Your task to perform on an android device: add a label to a message in the gmail app Image 0: 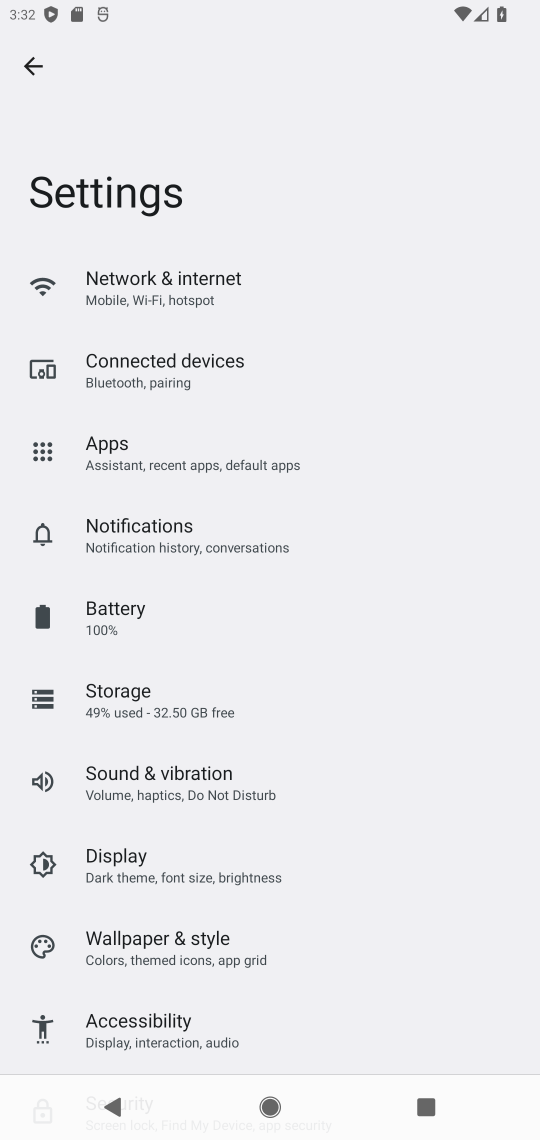
Step 0: press home button
Your task to perform on an android device: add a label to a message in the gmail app Image 1: 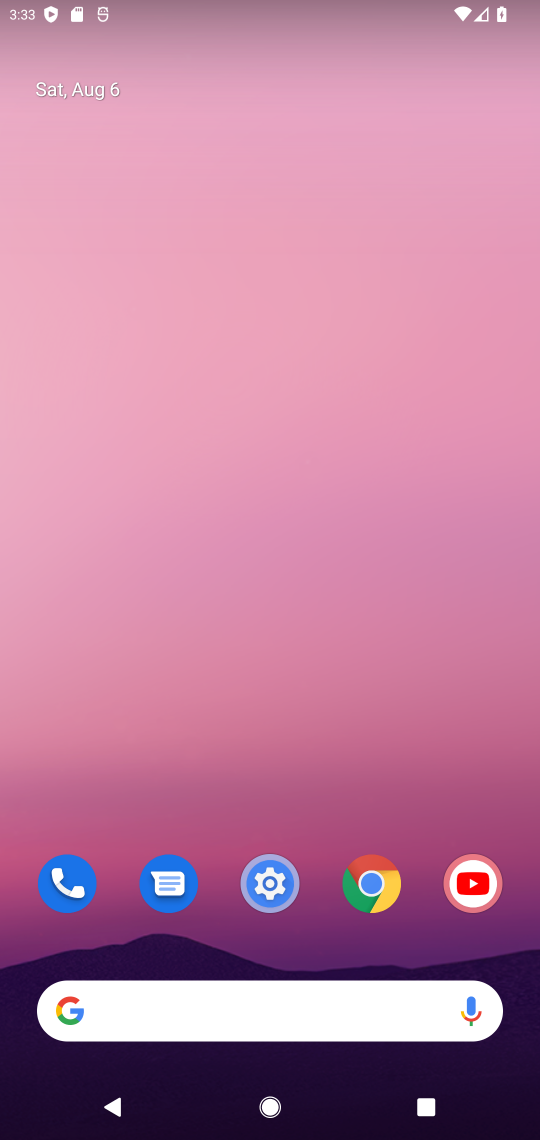
Step 1: drag from (302, 559) to (259, 8)
Your task to perform on an android device: add a label to a message in the gmail app Image 2: 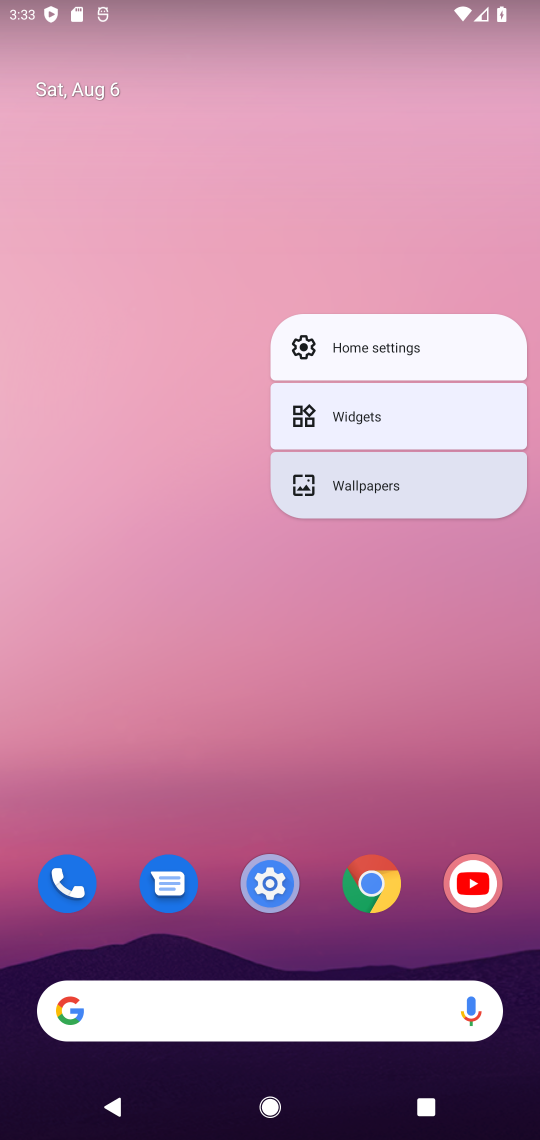
Step 2: click (214, 652)
Your task to perform on an android device: add a label to a message in the gmail app Image 3: 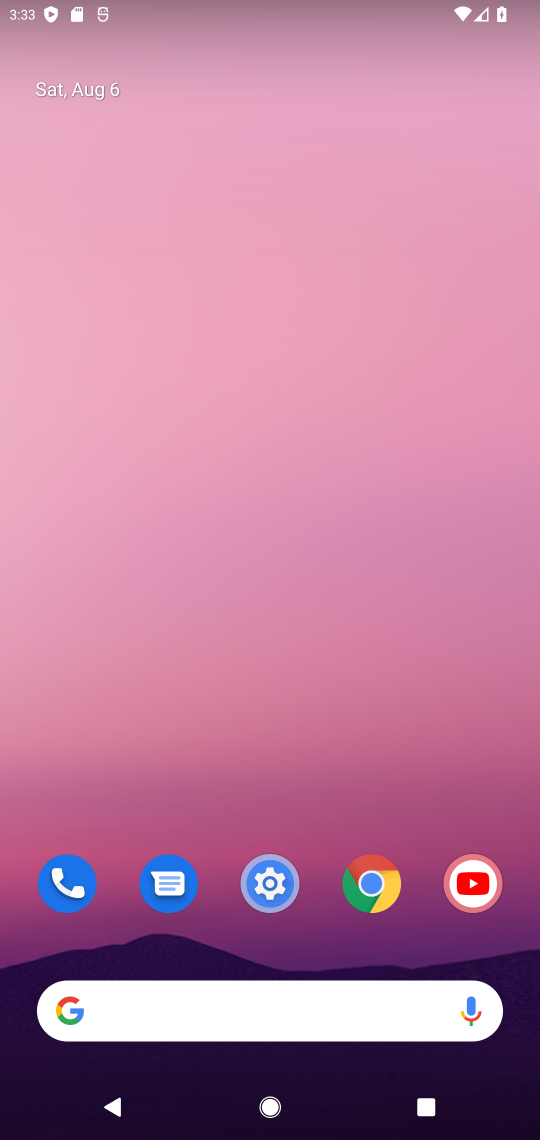
Step 3: drag from (244, 997) to (201, 132)
Your task to perform on an android device: add a label to a message in the gmail app Image 4: 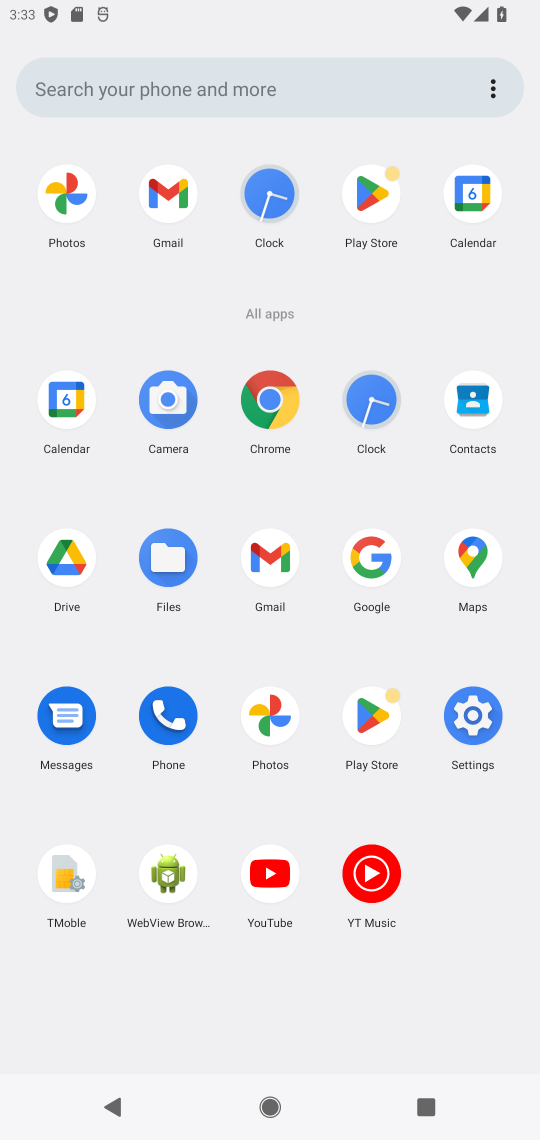
Step 4: click (172, 218)
Your task to perform on an android device: add a label to a message in the gmail app Image 5: 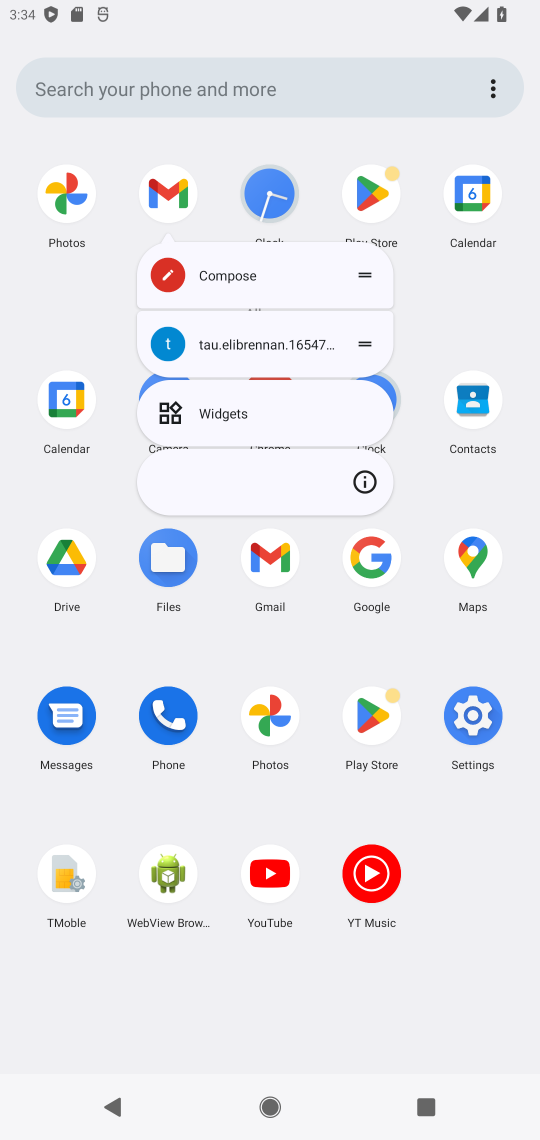
Step 5: click (156, 211)
Your task to perform on an android device: add a label to a message in the gmail app Image 6: 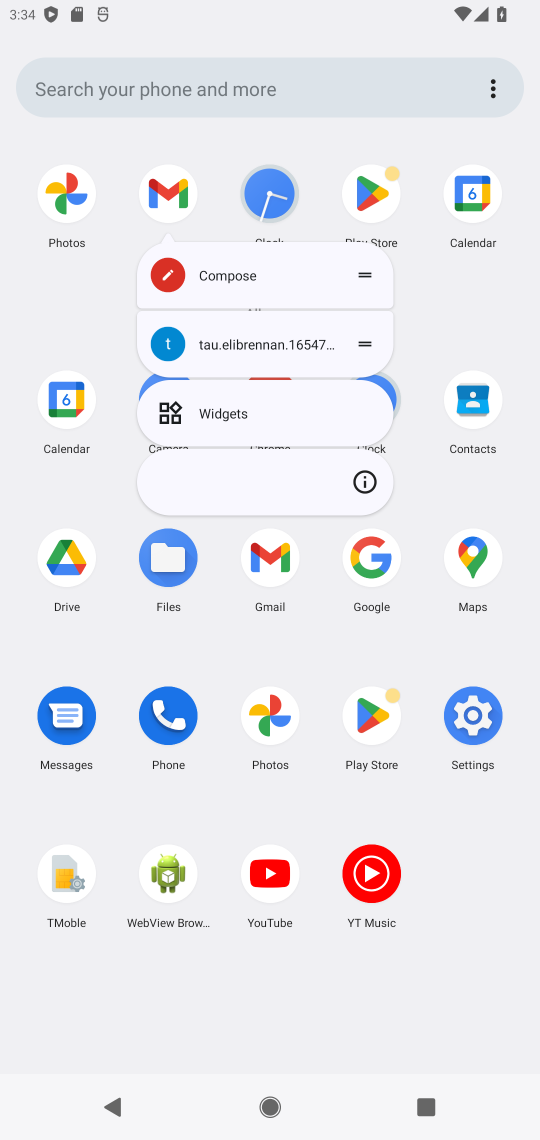
Step 6: click (234, 1018)
Your task to perform on an android device: add a label to a message in the gmail app Image 7: 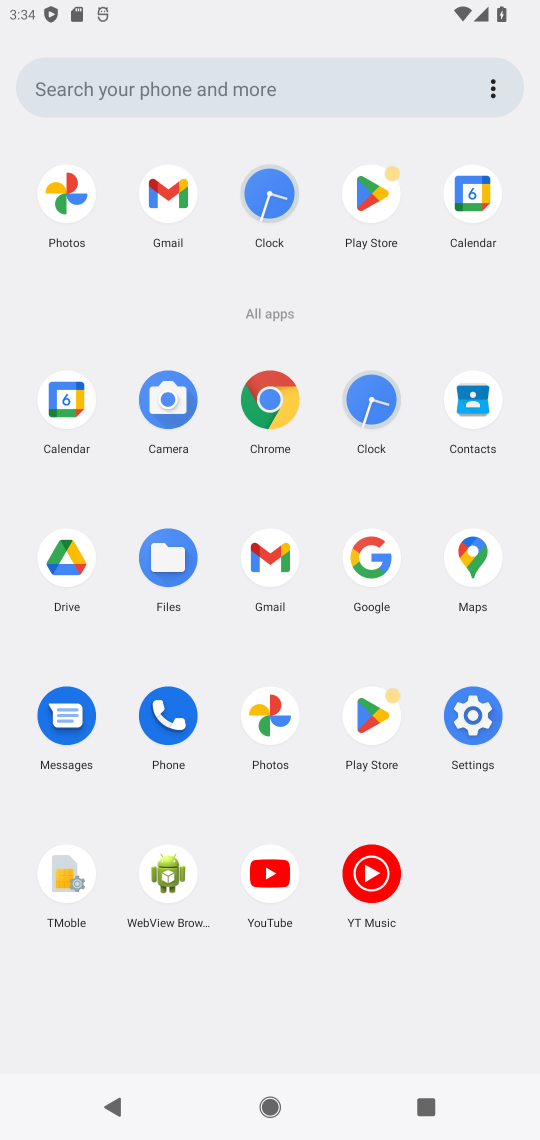
Step 7: click (162, 213)
Your task to perform on an android device: add a label to a message in the gmail app Image 8: 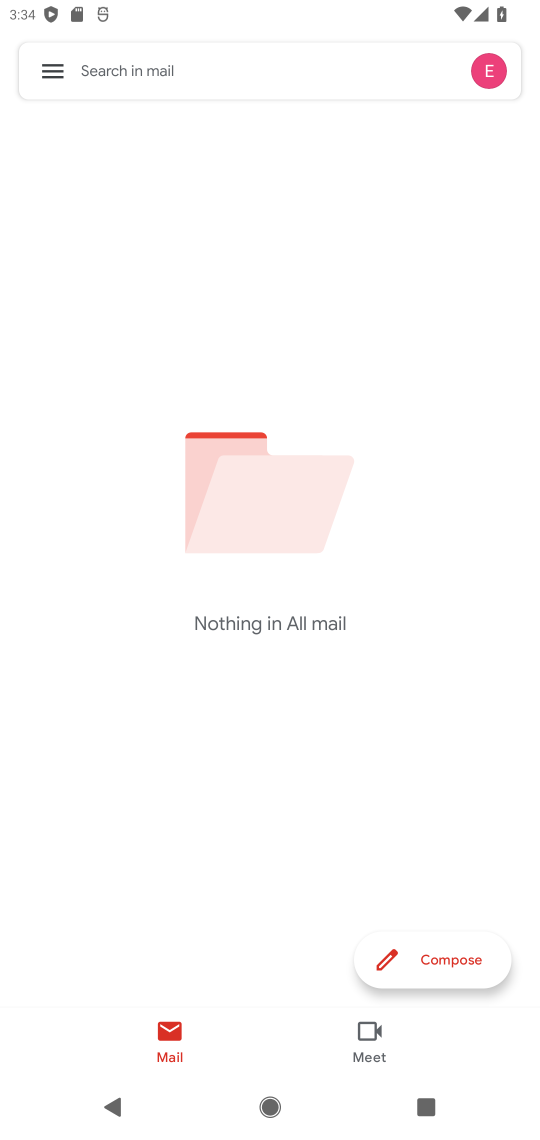
Step 8: task complete